Your task to perform on an android device: set the stopwatch Image 0: 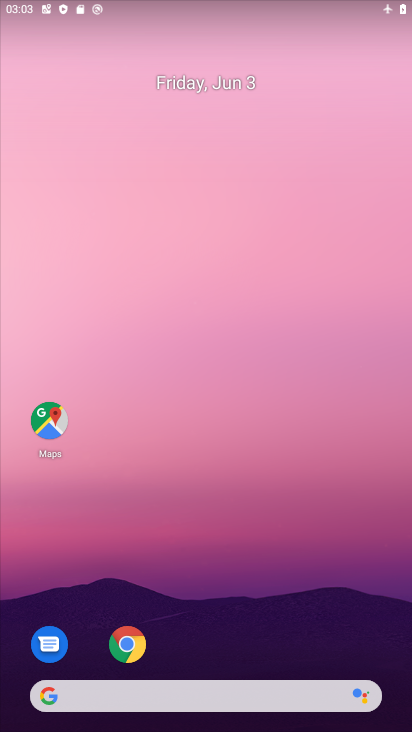
Step 0: drag from (215, 662) to (240, 283)
Your task to perform on an android device: set the stopwatch Image 1: 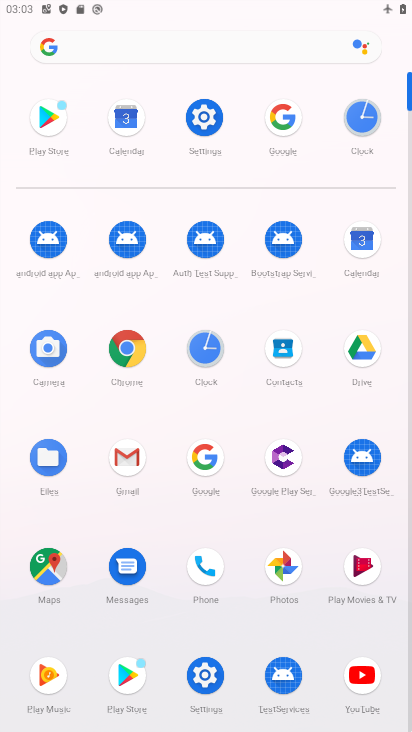
Step 1: click (376, 109)
Your task to perform on an android device: set the stopwatch Image 2: 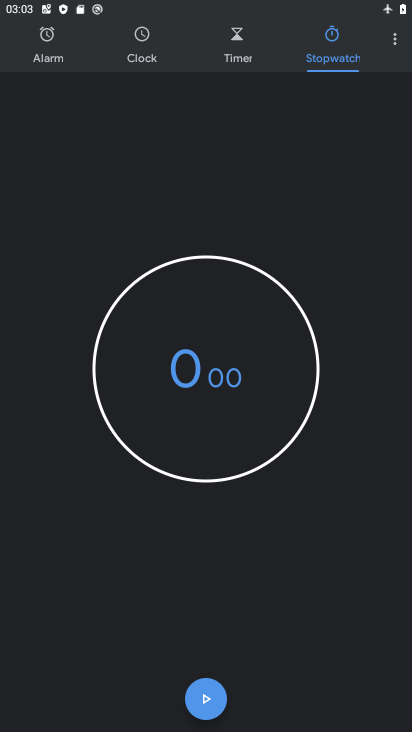
Step 2: click (202, 703)
Your task to perform on an android device: set the stopwatch Image 3: 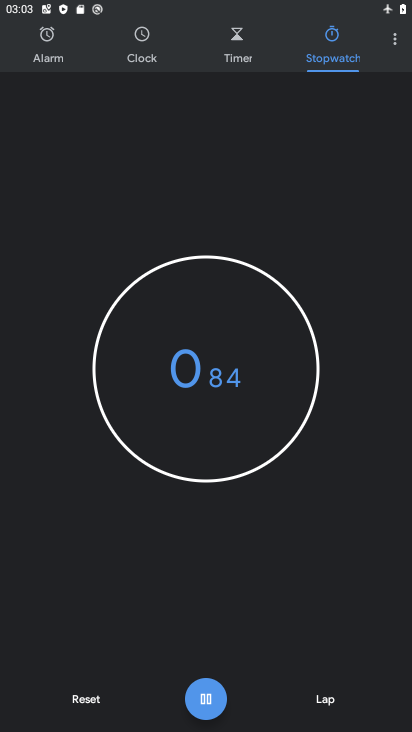
Step 3: task complete